Your task to perform on an android device: Add usb-a to usb-b to the cart on newegg Image 0: 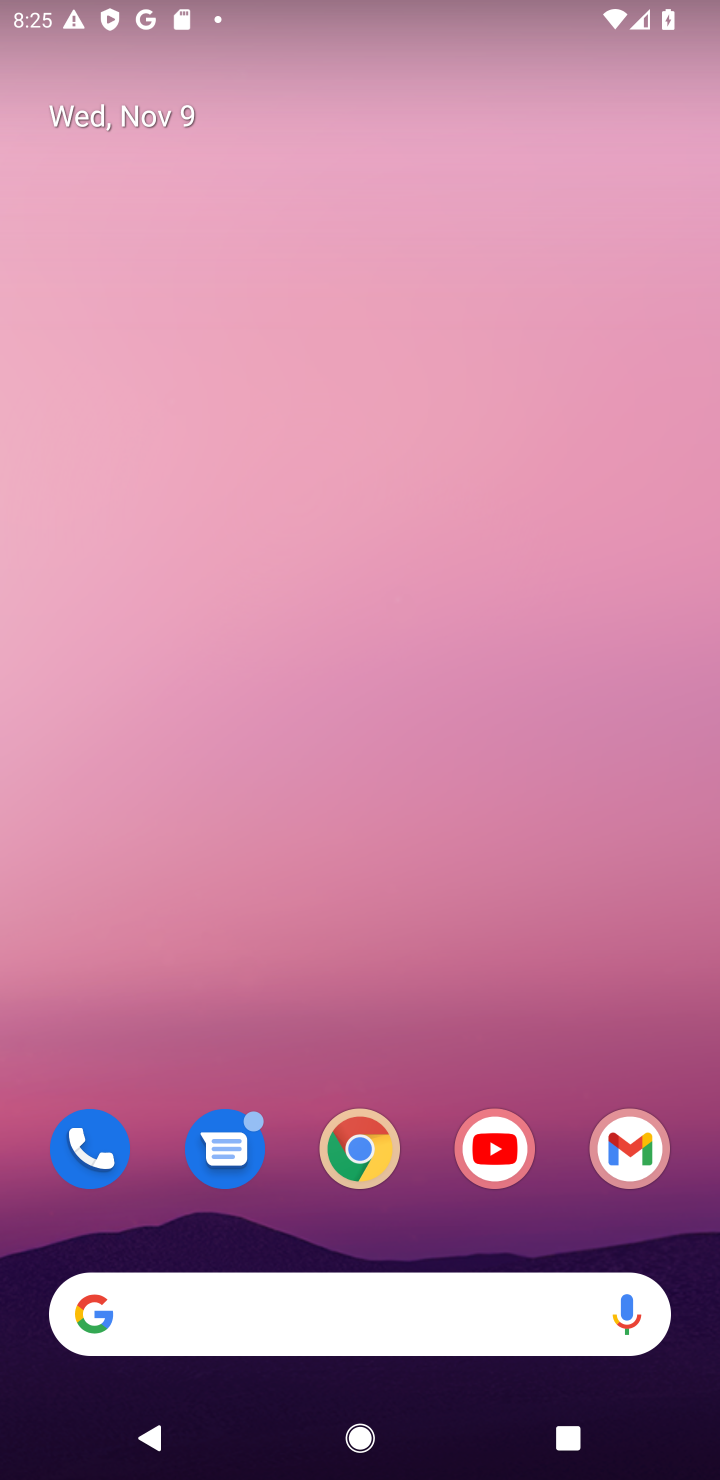
Step 0: drag from (434, 554) to (455, 347)
Your task to perform on an android device: Add usb-a to usb-b to the cart on newegg Image 1: 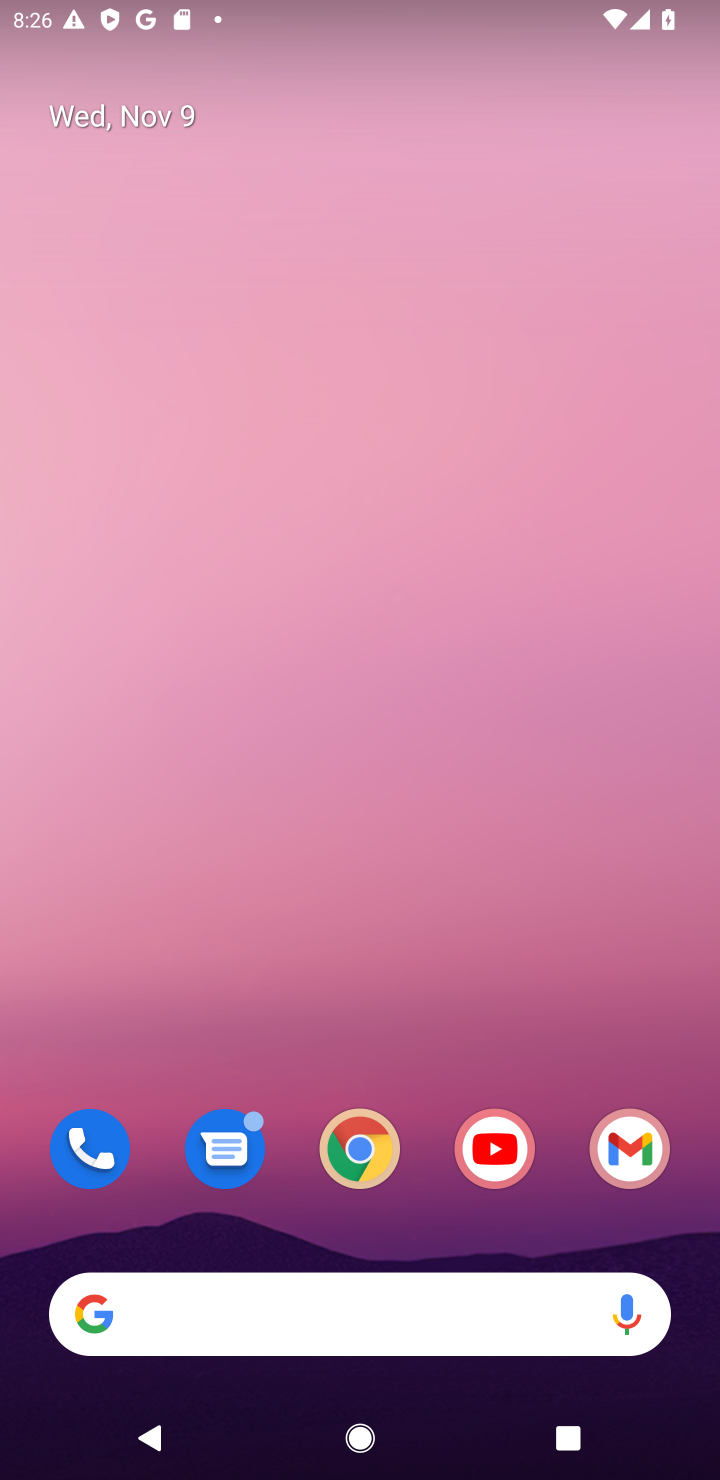
Step 1: drag from (450, 845) to (488, 288)
Your task to perform on an android device: Add usb-a to usb-b to the cart on newegg Image 2: 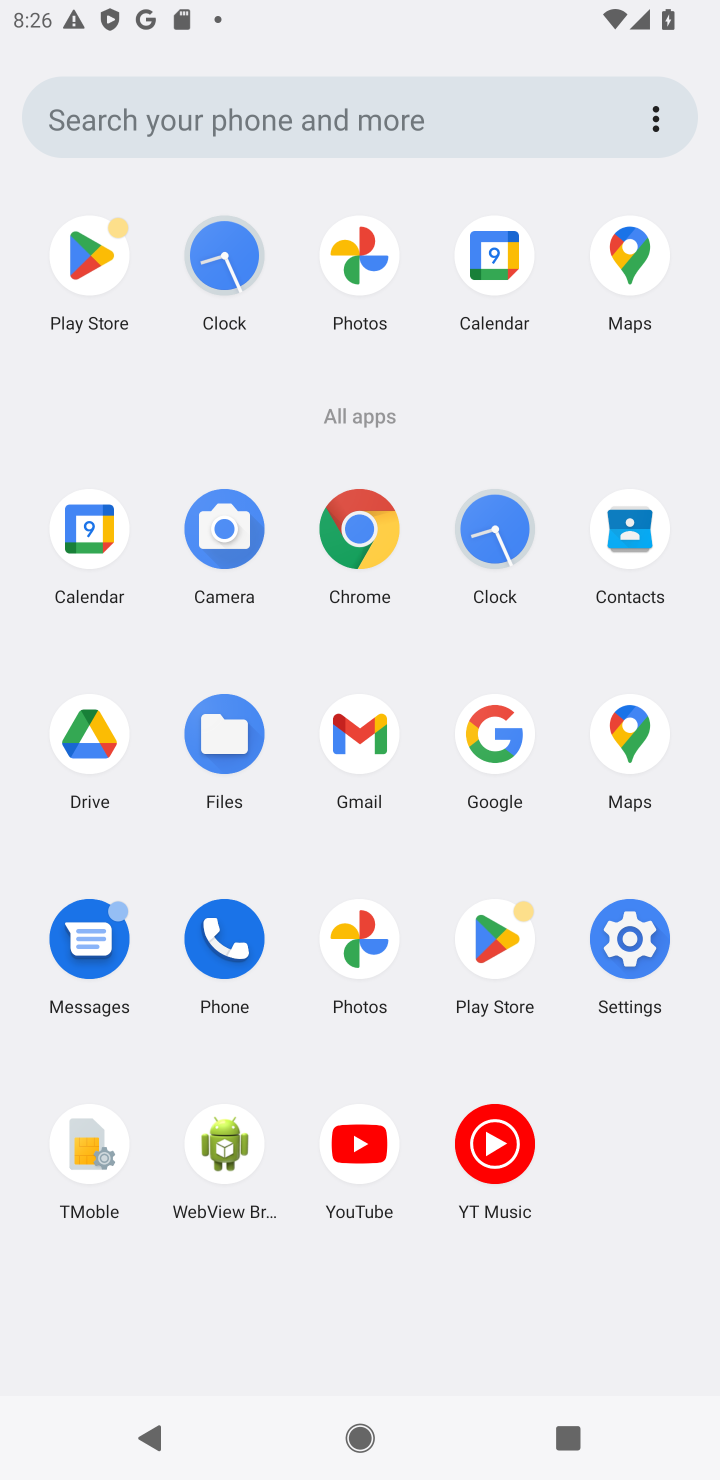
Step 2: click (373, 529)
Your task to perform on an android device: Add usb-a to usb-b to the cart on newegg Image 3: 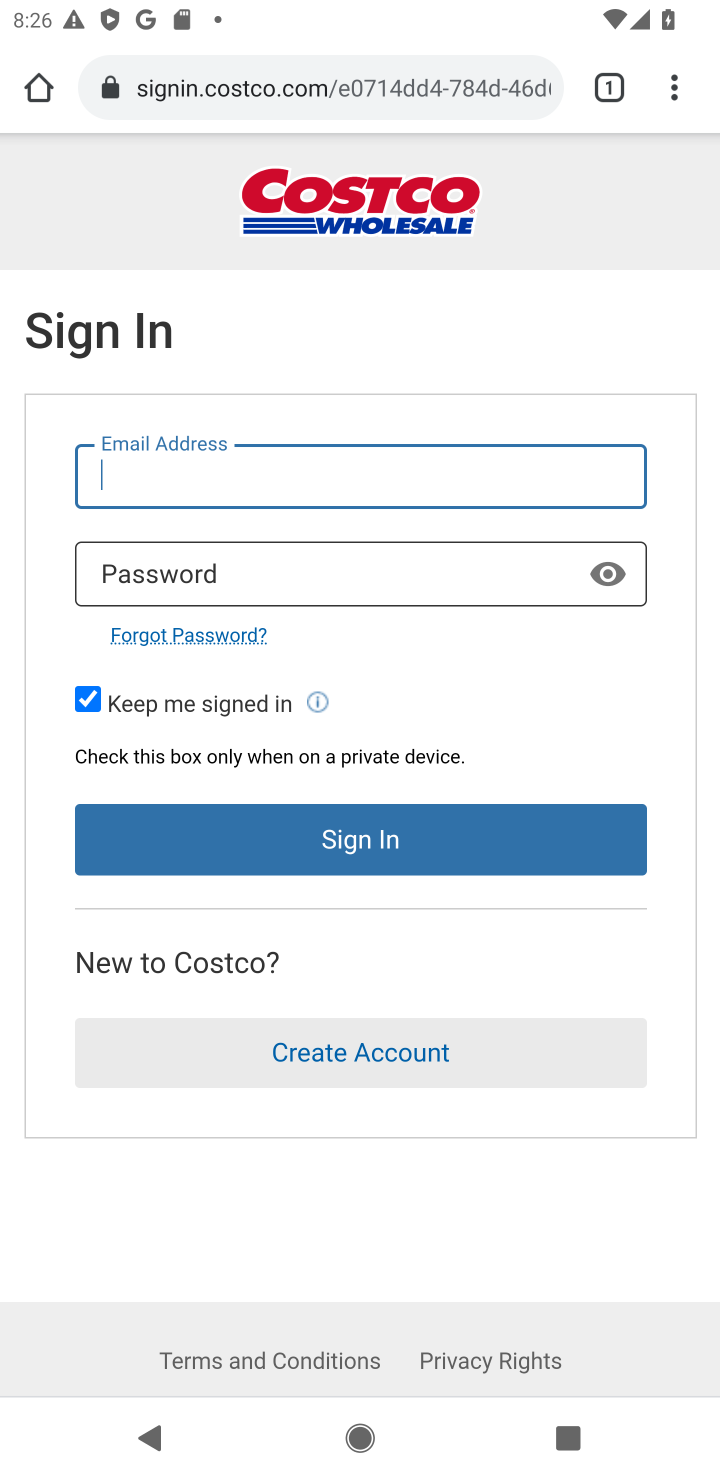
Step 3: click (339, 107)
Your task to perform on an android device: Add usb-a to usb-b to the cart on newegg Image 4: 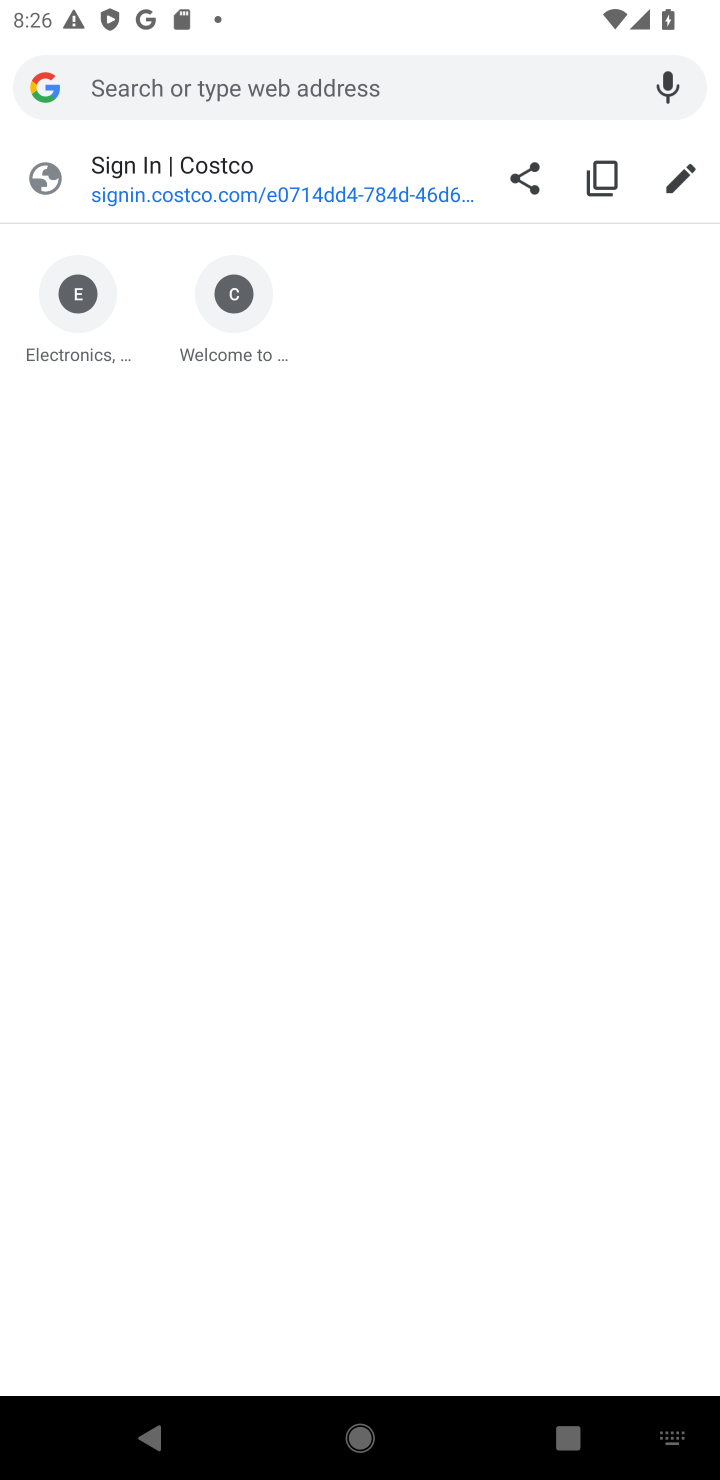
Step 4: type "newegg"
Your task to perform on an android device: Add usb-a to usb-b to the cart on newegg Image 5: 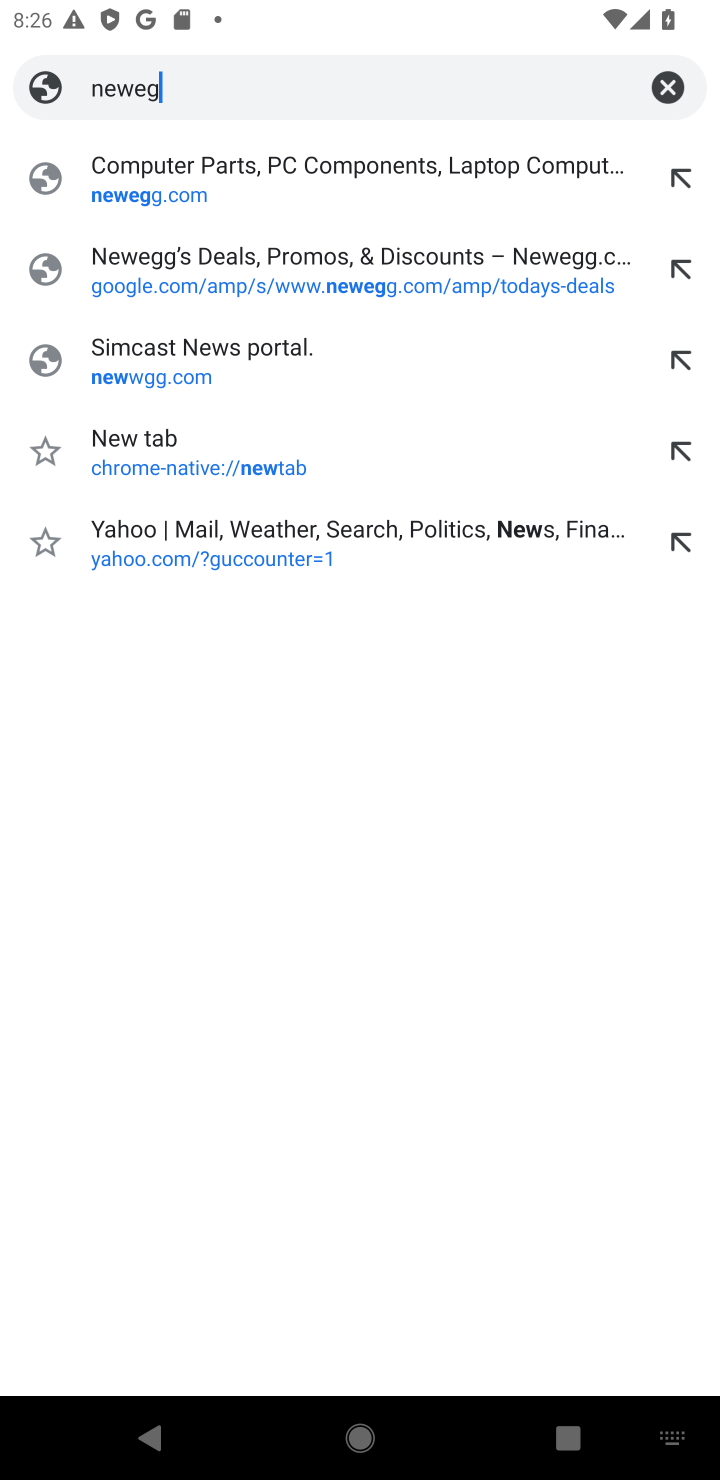
Step 5: press enter
Your task to perform on an android device: Add usb-a to usb-b to the cart on newegg Image 6: 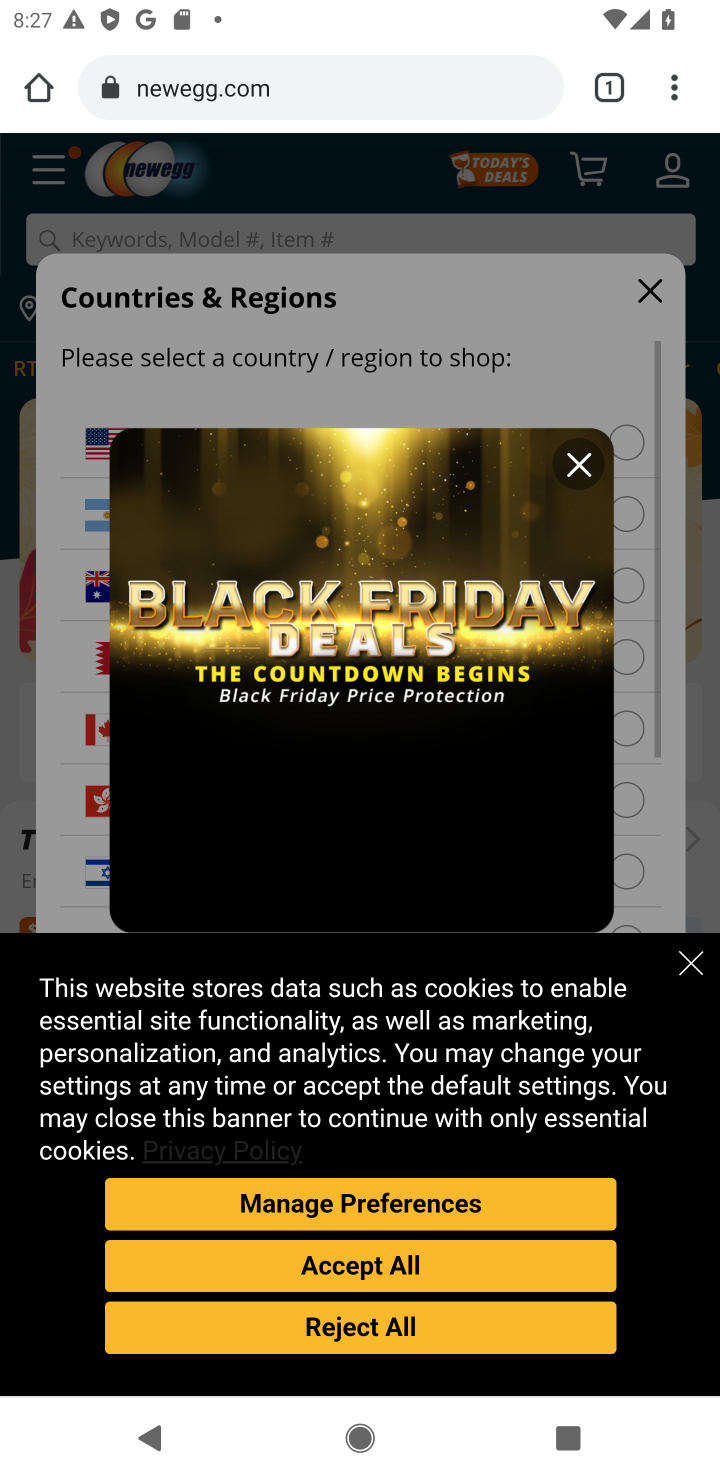
Step 6: click (379, 1256)
Your task to perform on an android device: Add usb-a to usb-b to the cart on newegg Image 7: 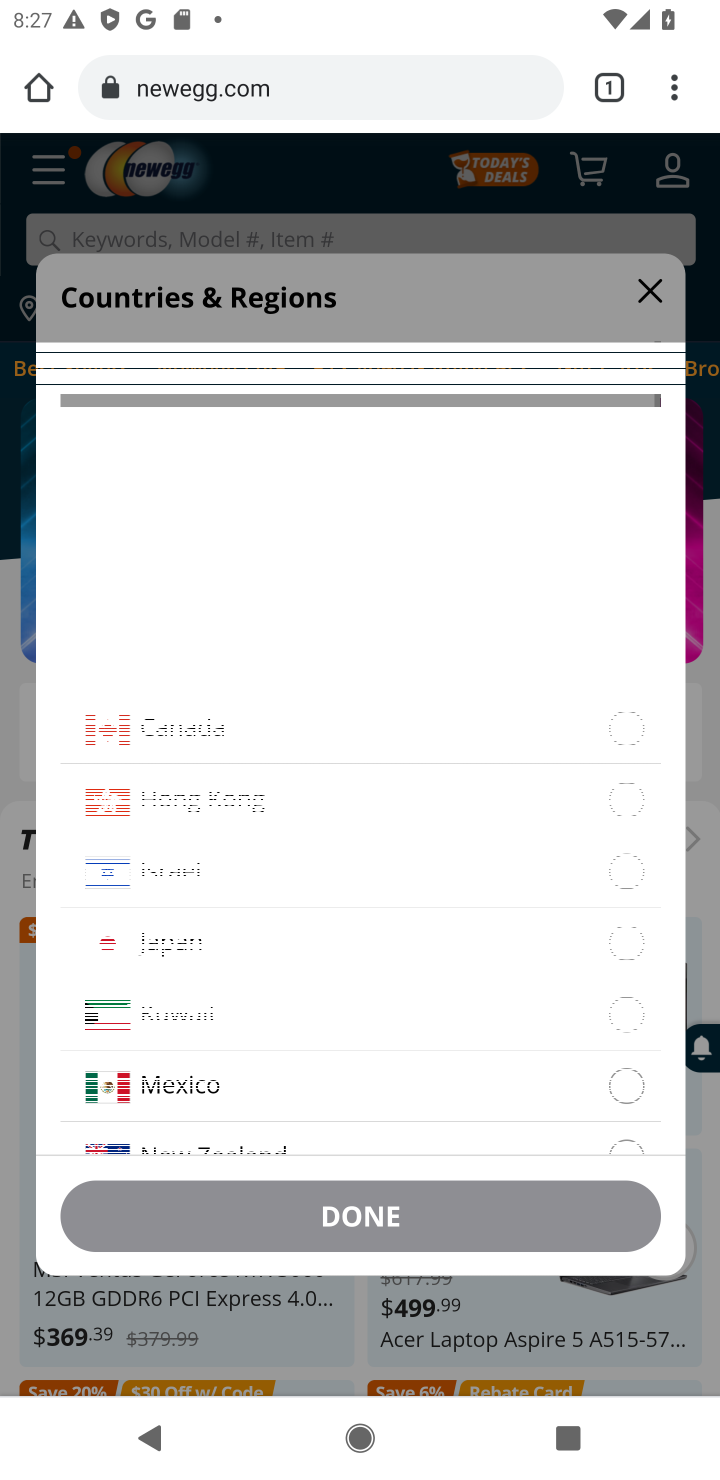
Step 7: click (581, 458)
Your task to perform on an android device: Add usb-a to usb-b to the cart on newegg Image 8: 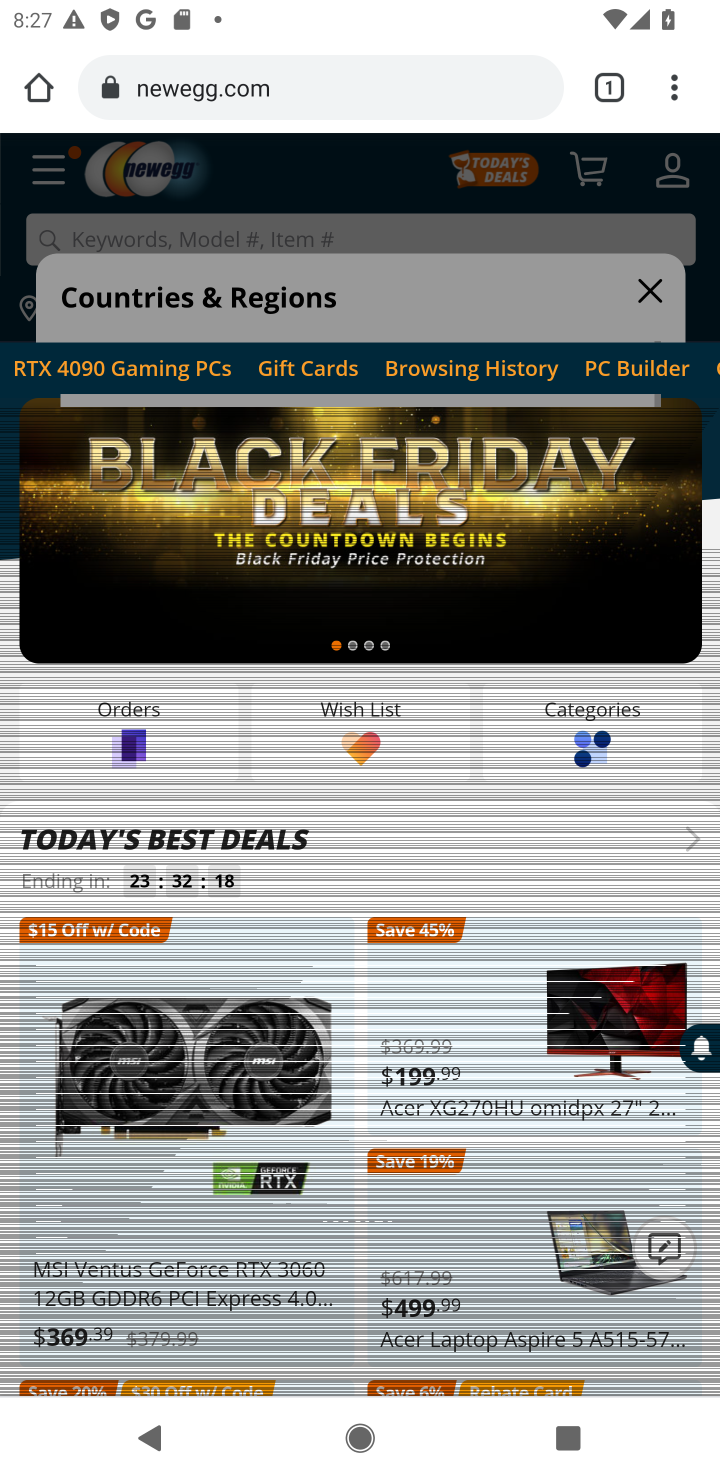
Step 8: click (586, 456)
Your task to perform on an android device: Add usb-a to usb-b to the cart on newegg Image 9: 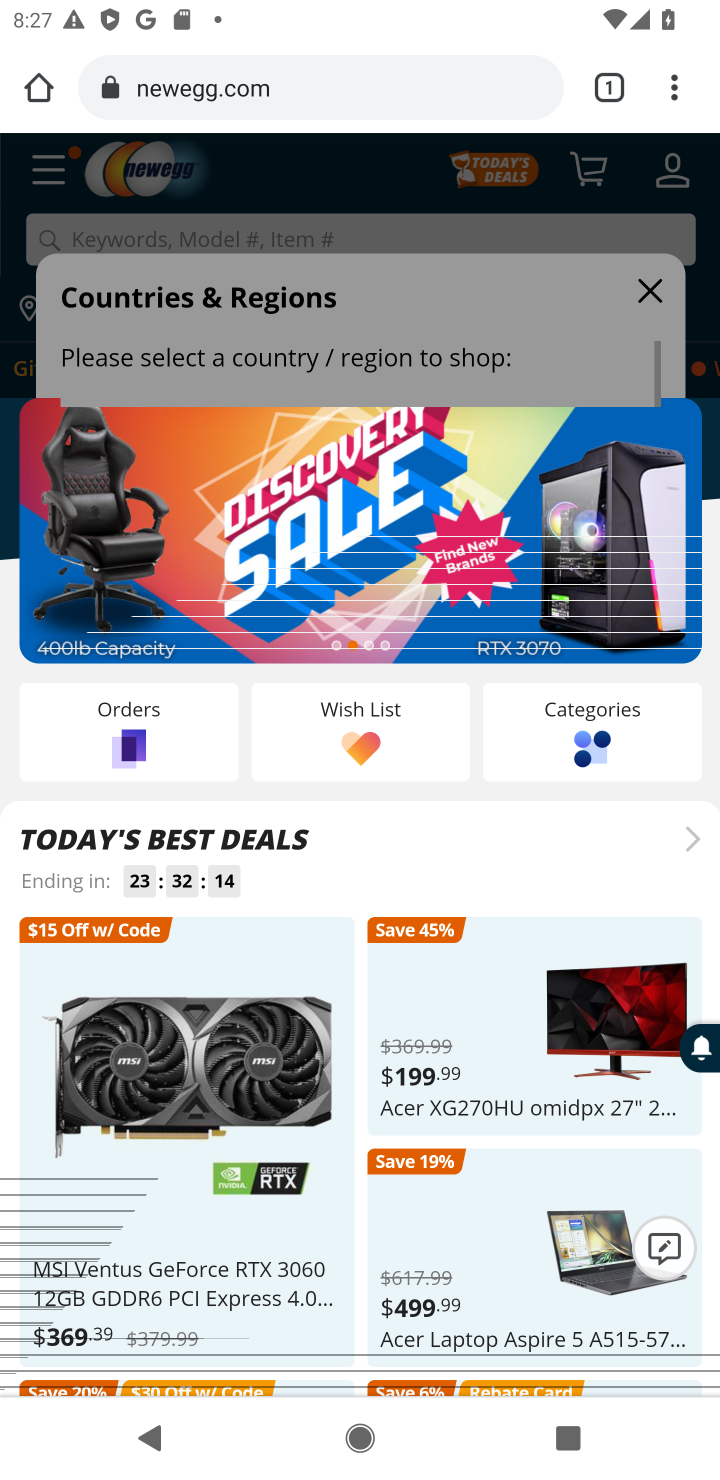
Step 9: click (582, 460)
Your task to perform on an android device: Add usb-a to usb-b to the cart on newegg Image 10: 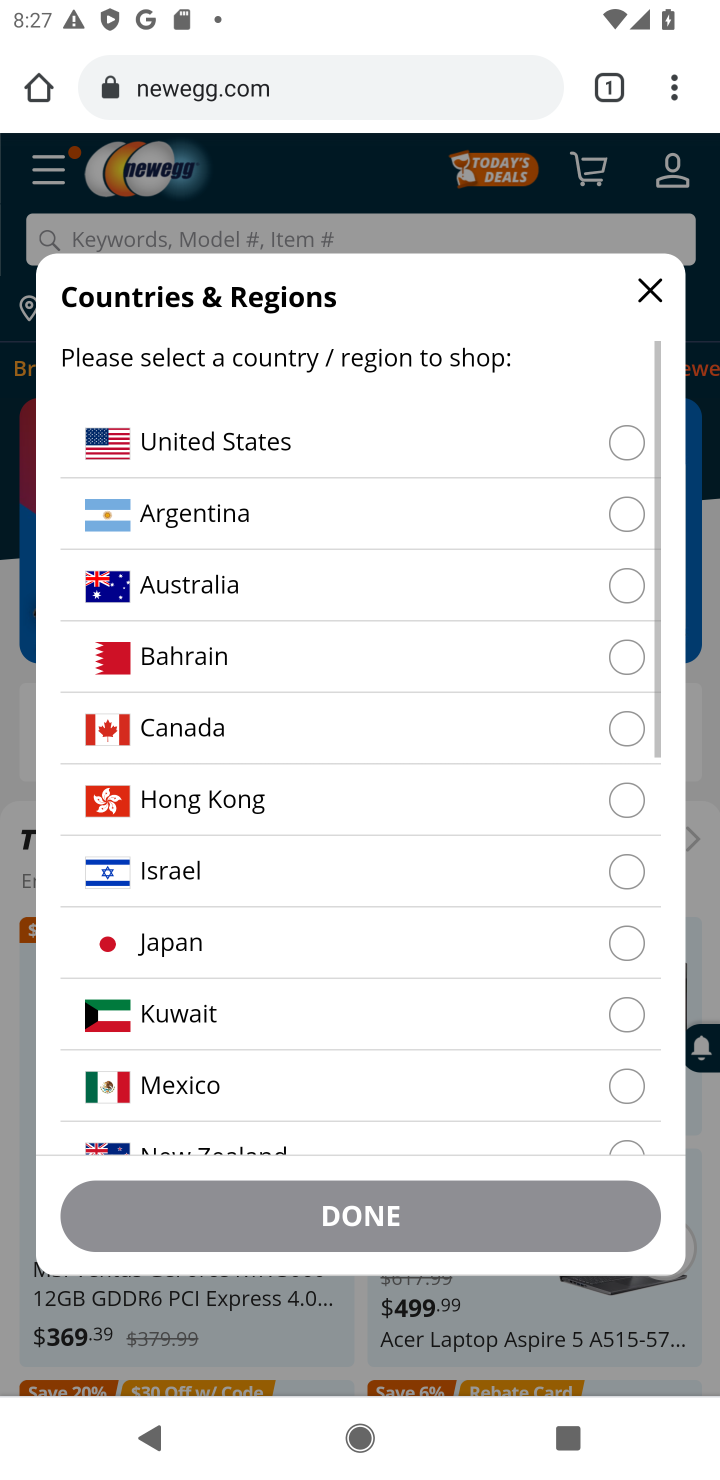
Step 10: click (573, 480)
Your task to perform on an android device: Add usb-a to usb-b to the cart on newegg Image 11: 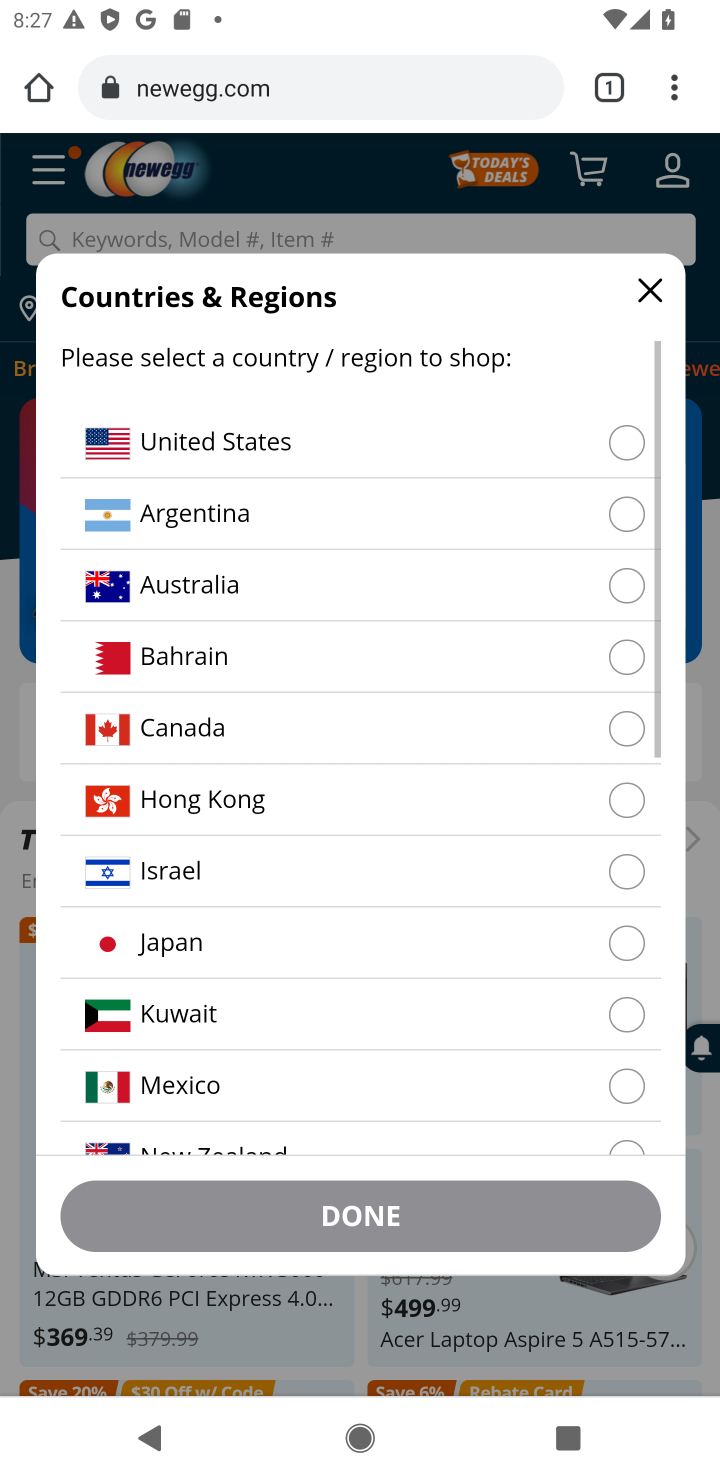
Step 11: click (580, 452)
Your task to perform on an android device: Add usb-a to usb-b to the cart on newegg Image 12: 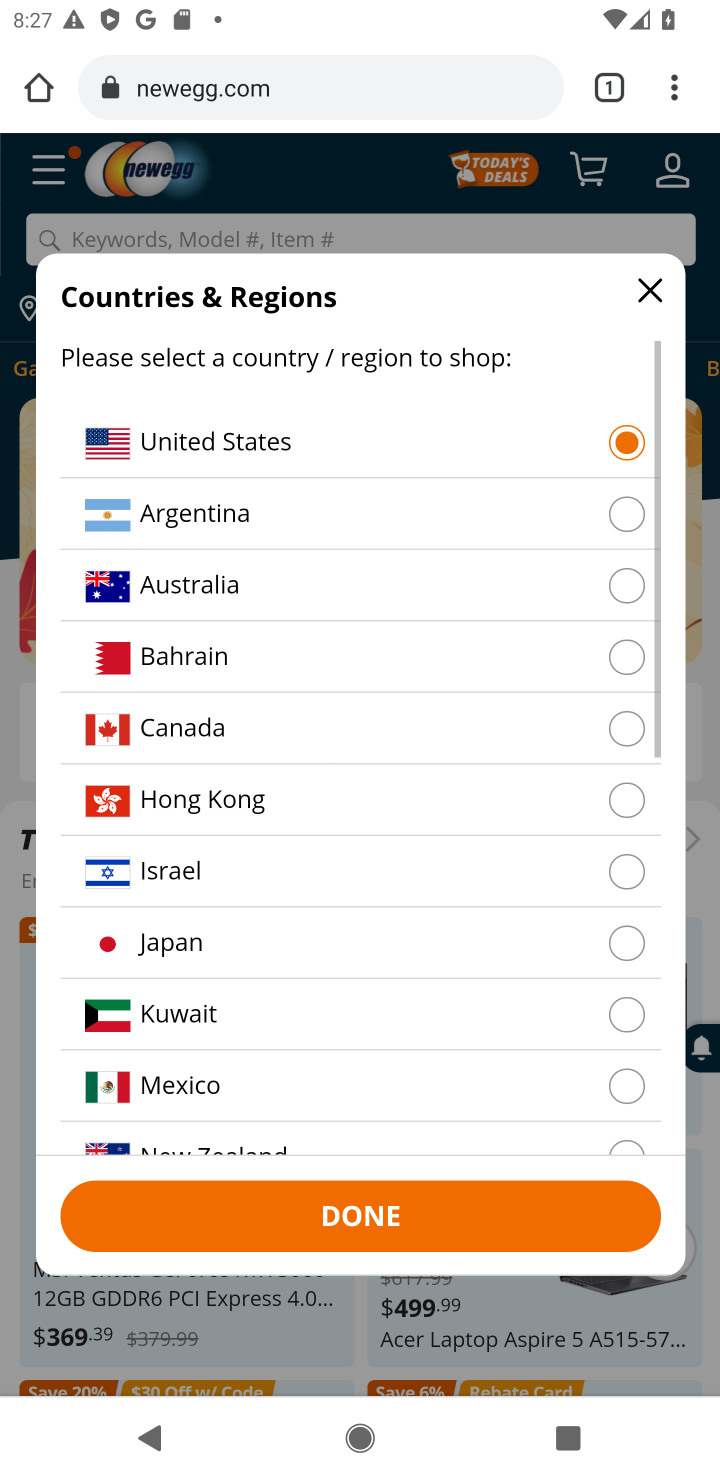
Step 12: click (350, 1208)
Your task to perform on an android device: Add usb-a to usb-b to the cart on newegg Image 13: 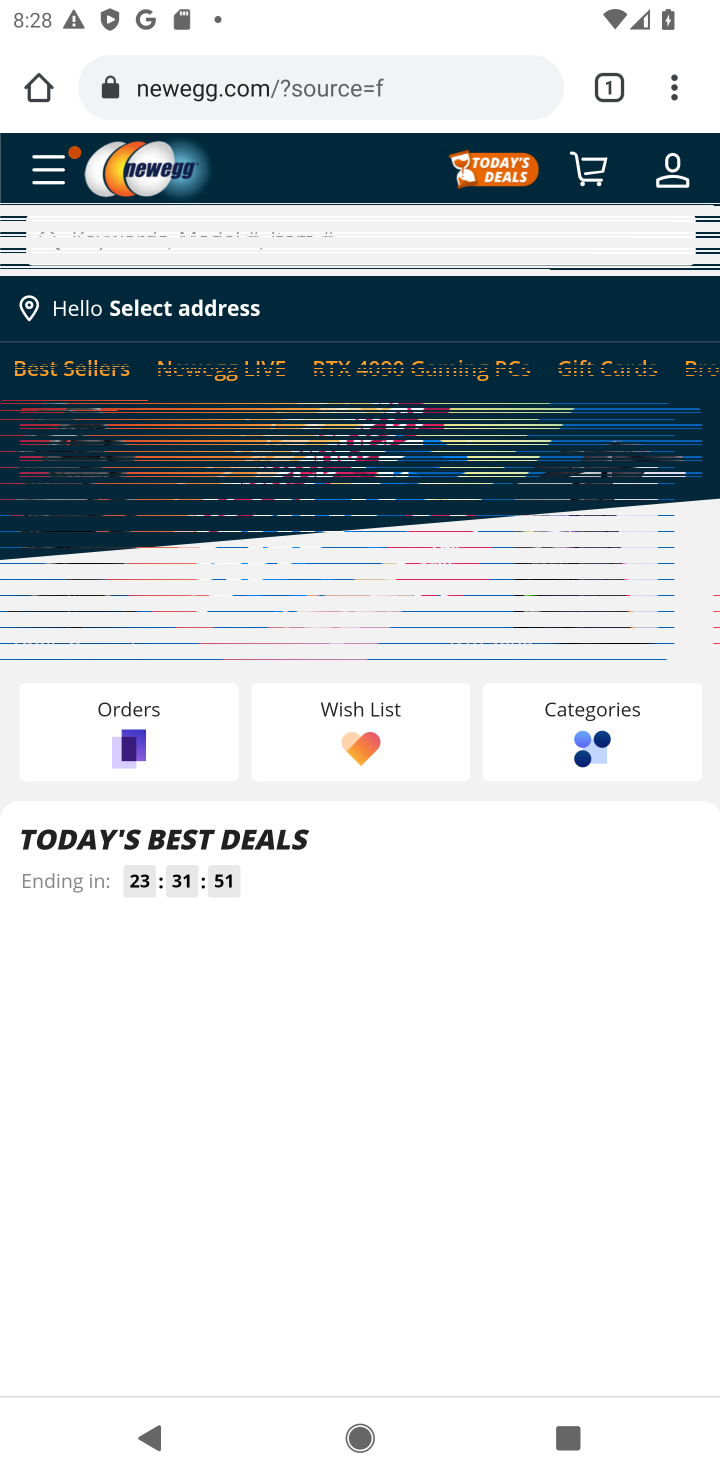
Step 13: click (96, 233)
Your task to perform on an android device: Add usb-a to usb-b to the cart on newegg Image 14: 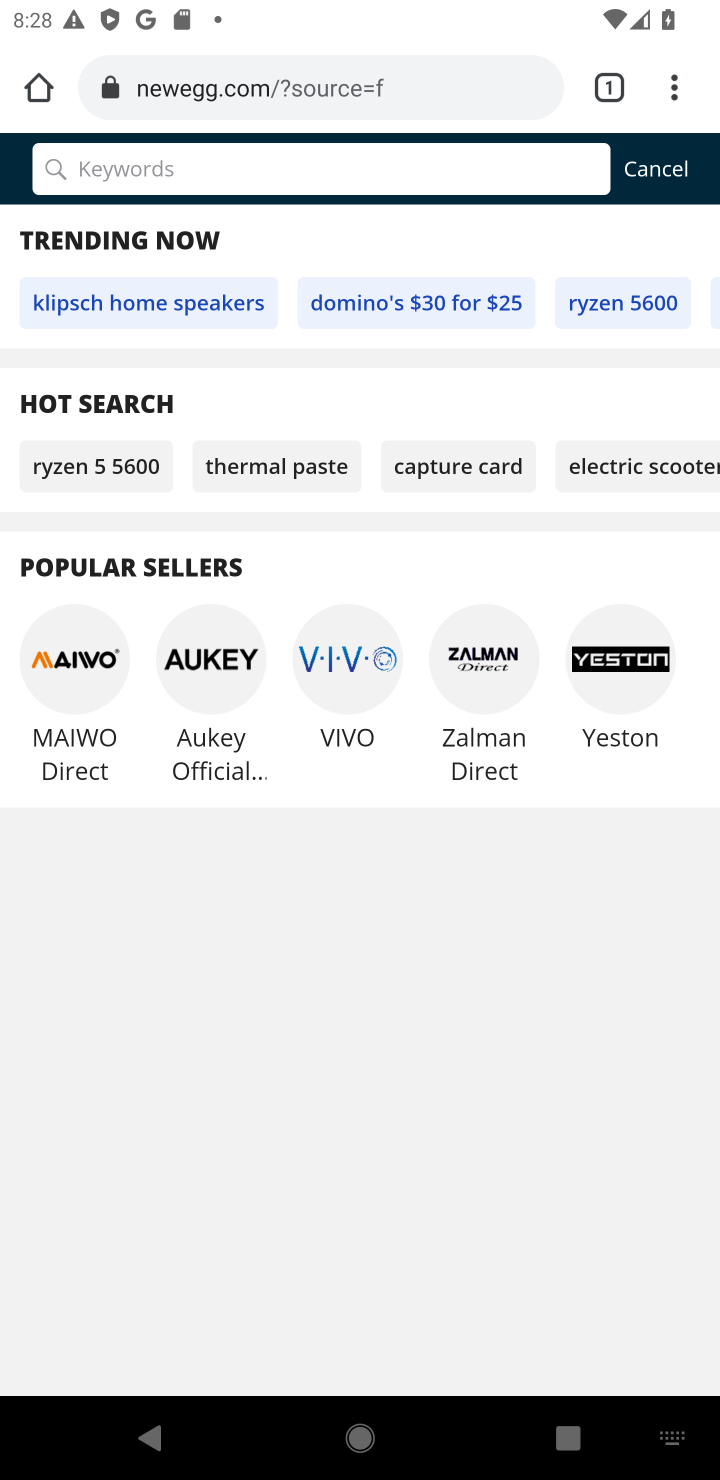
Step 14: click (504, 1015)
Your task to perform on an android device: Add usb-a to usb-b to the cart on newegg Image 15: 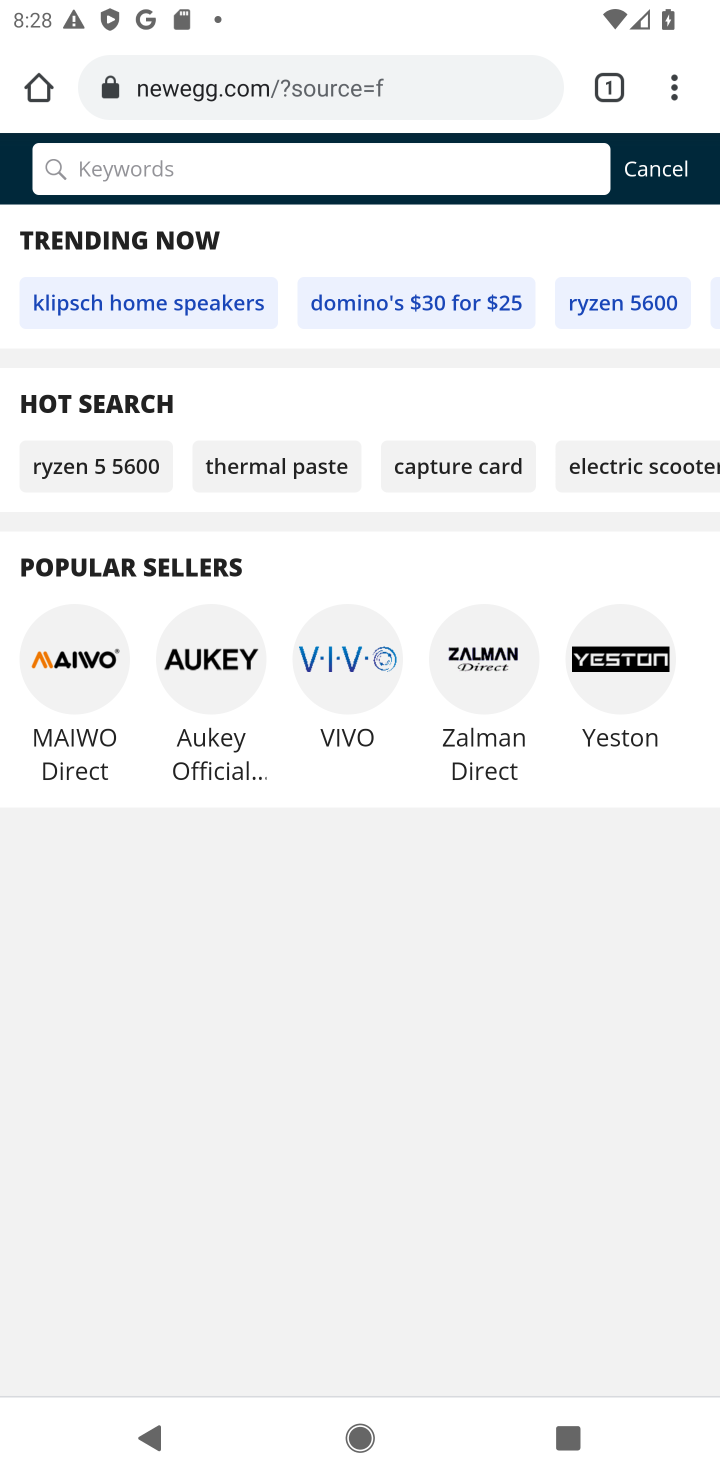
Step 15: click (287, 175)
Your task to perform on an android device: Add usb-a to usb-b to the cart on newegg Image 16: 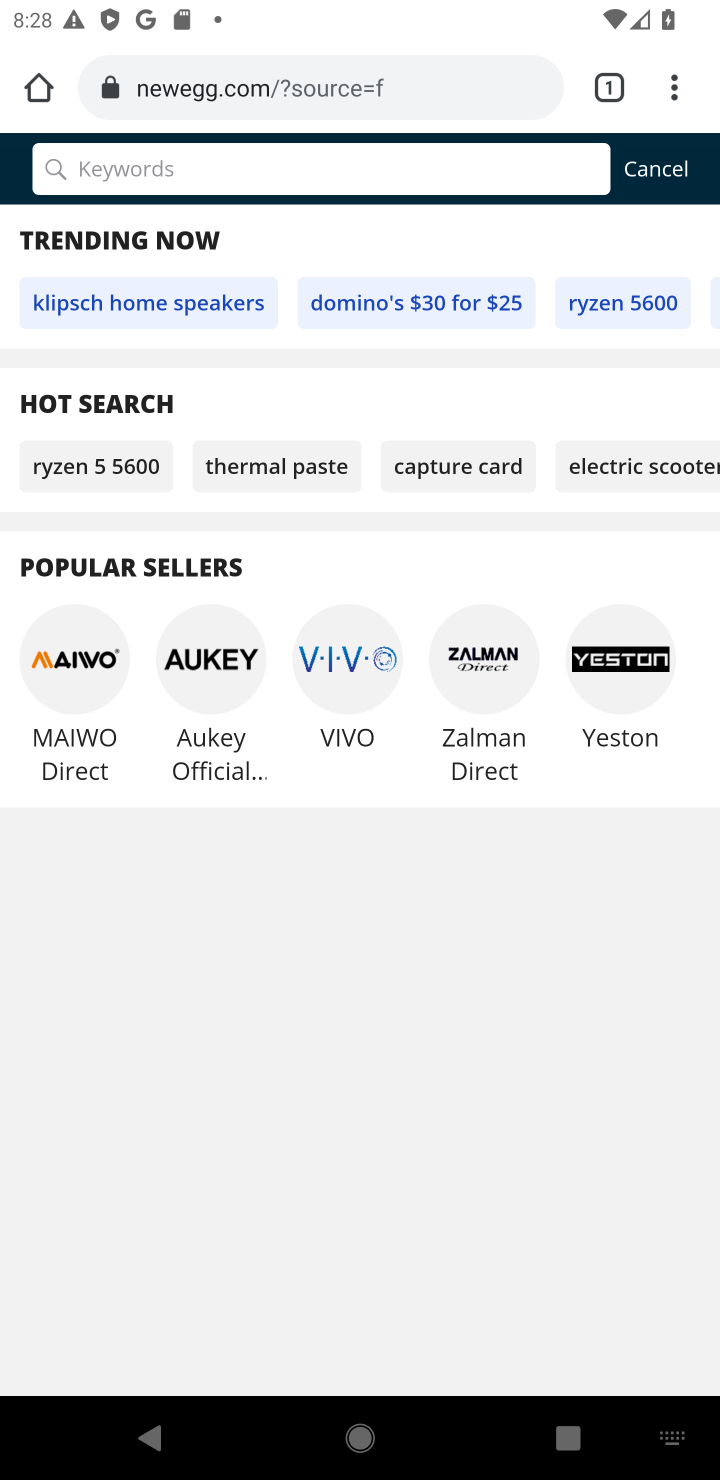
Step 16: type "usb-a to usb-b "
Your task to perform on an android device: Add usb-a to usb-b to the cart on newegg Image 17: 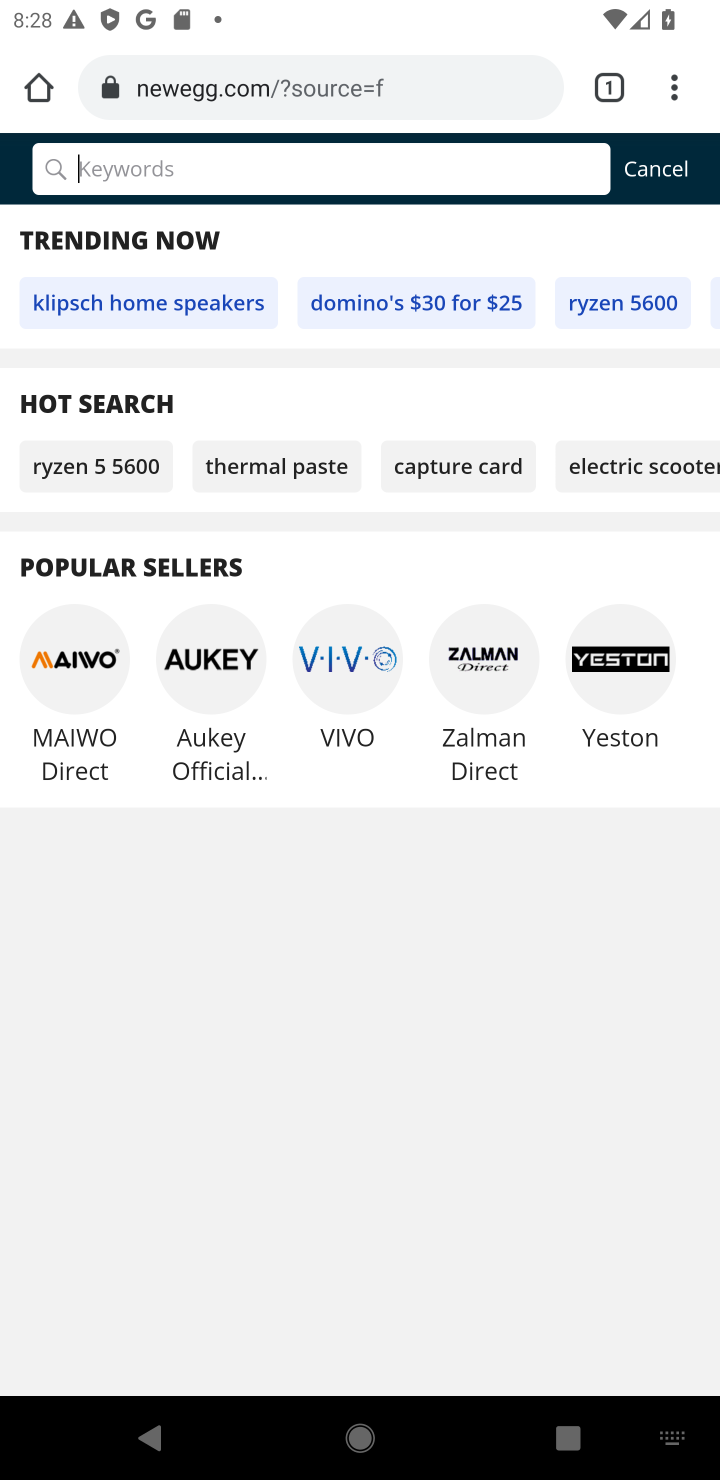
Step 17: press enter
Your task to perform on an android device: Add usb-a to usb-b to the cart on newegg Image 18: 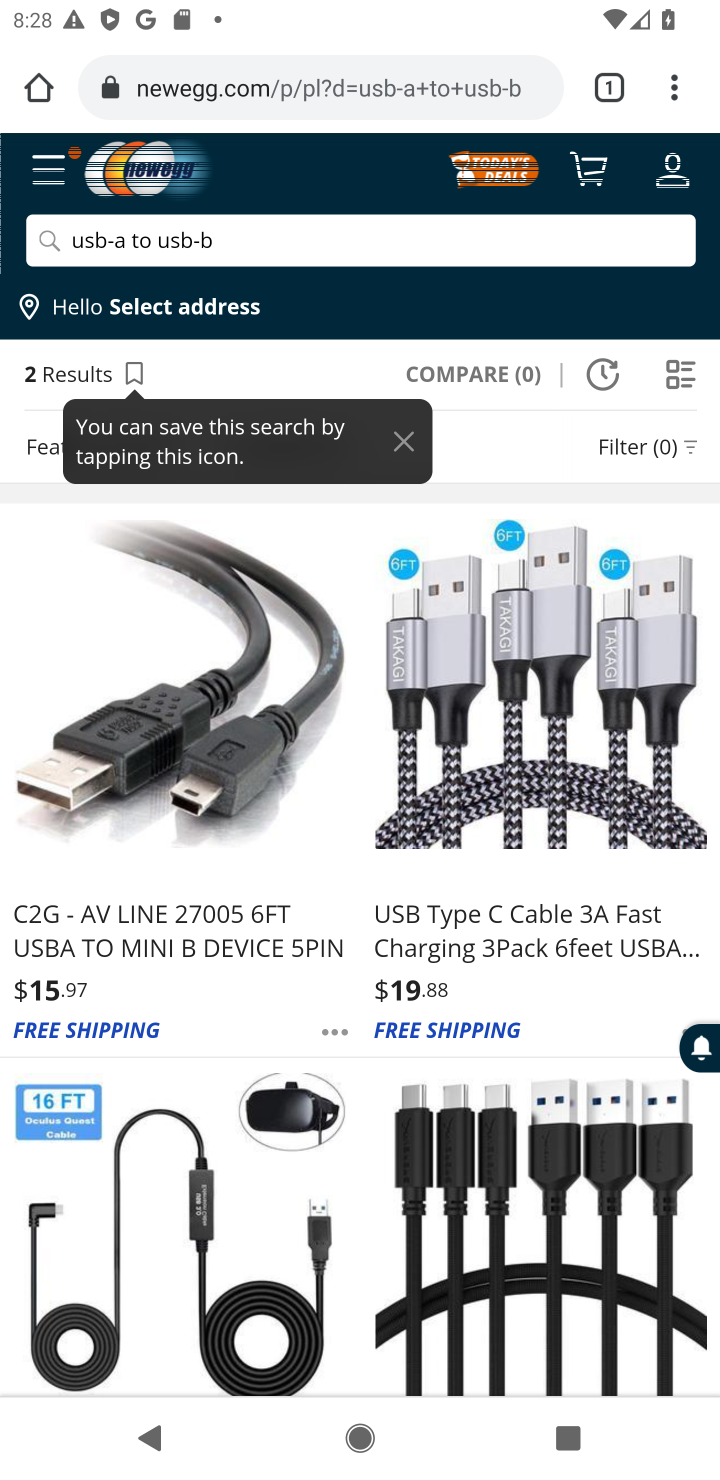
Step 18: click (162, 731)
Your task to perform on an android device: Add usb-a to usb-b to the cart on newegg Image 19: 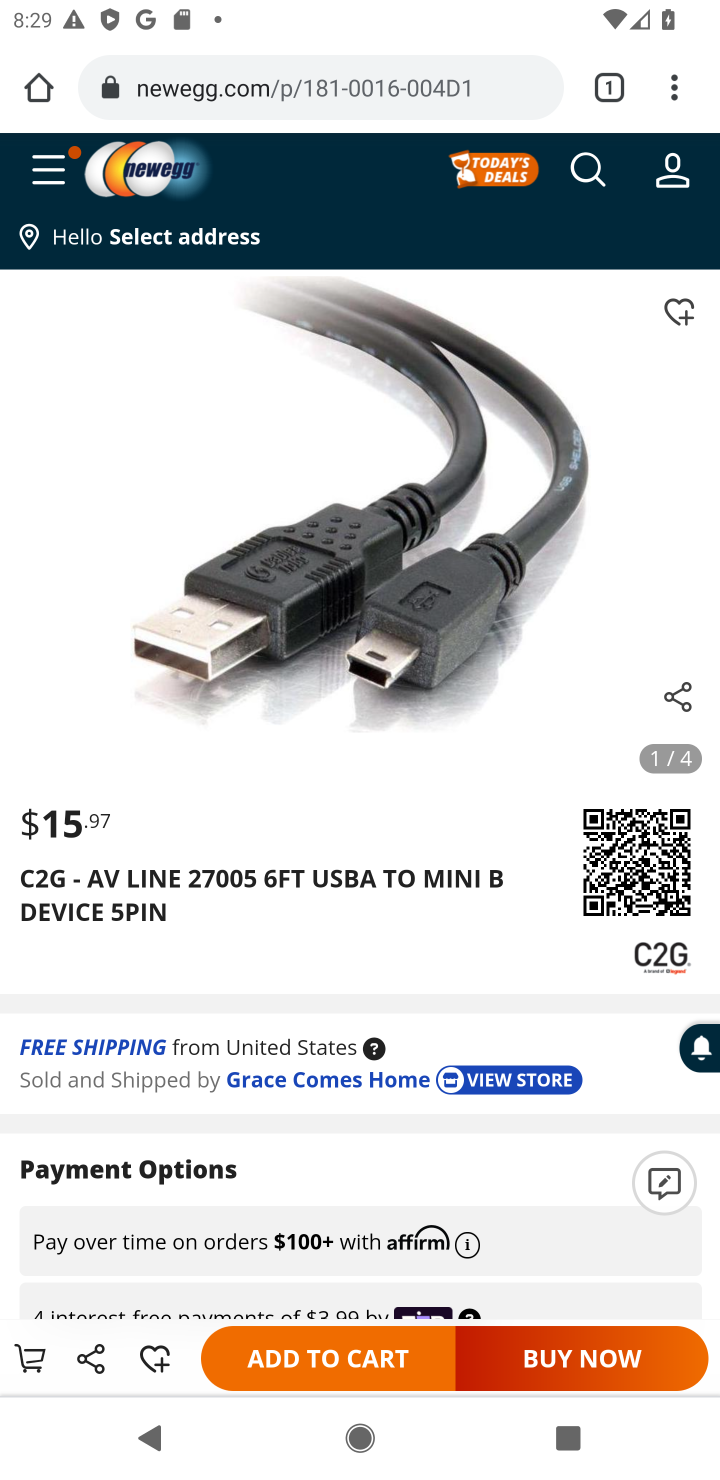
Step 19: click (325, 1344)
Your task to perform on an android device: Add usb-a to usb-b to the cart on newegg Image 20: 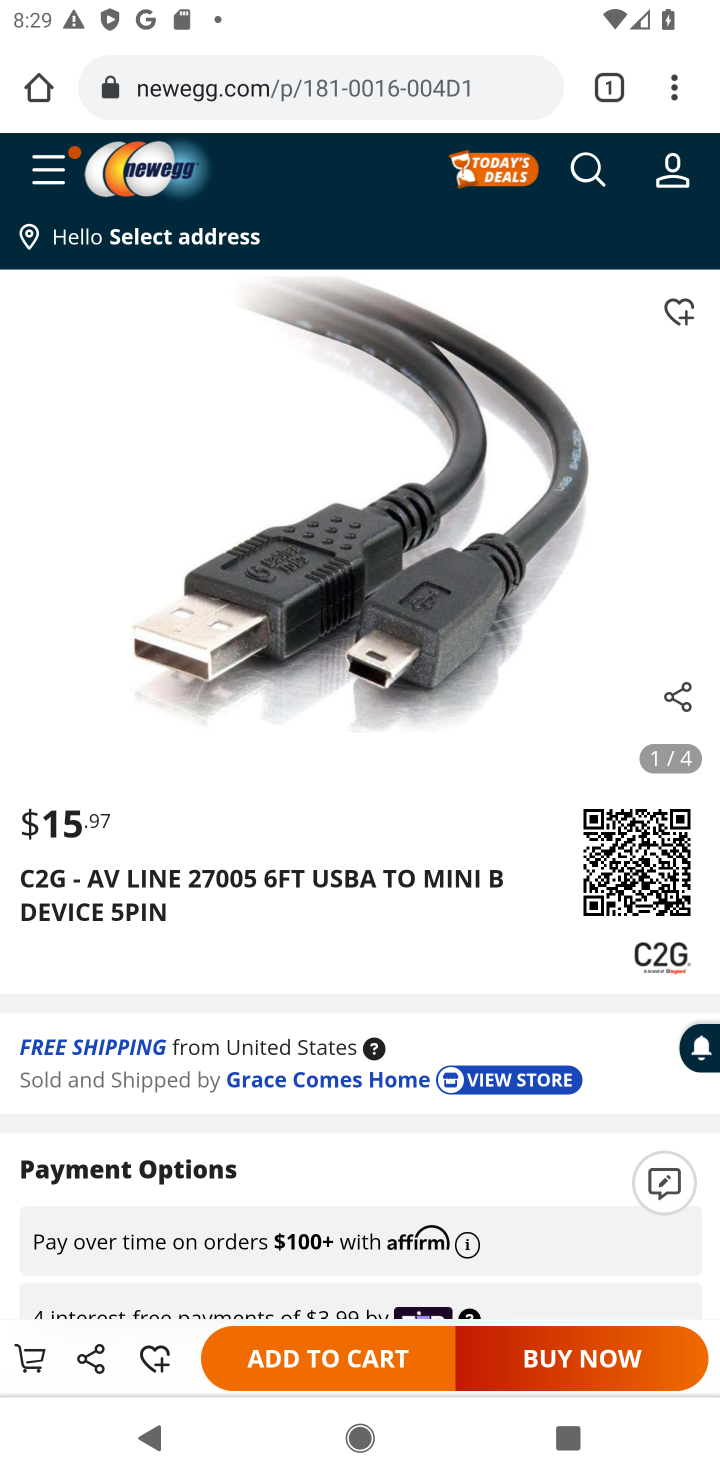
Step 20: click (351, 1350)
Your task to perform on an android device: Add usb-a to usb-b to the cart on newegg Image 21: 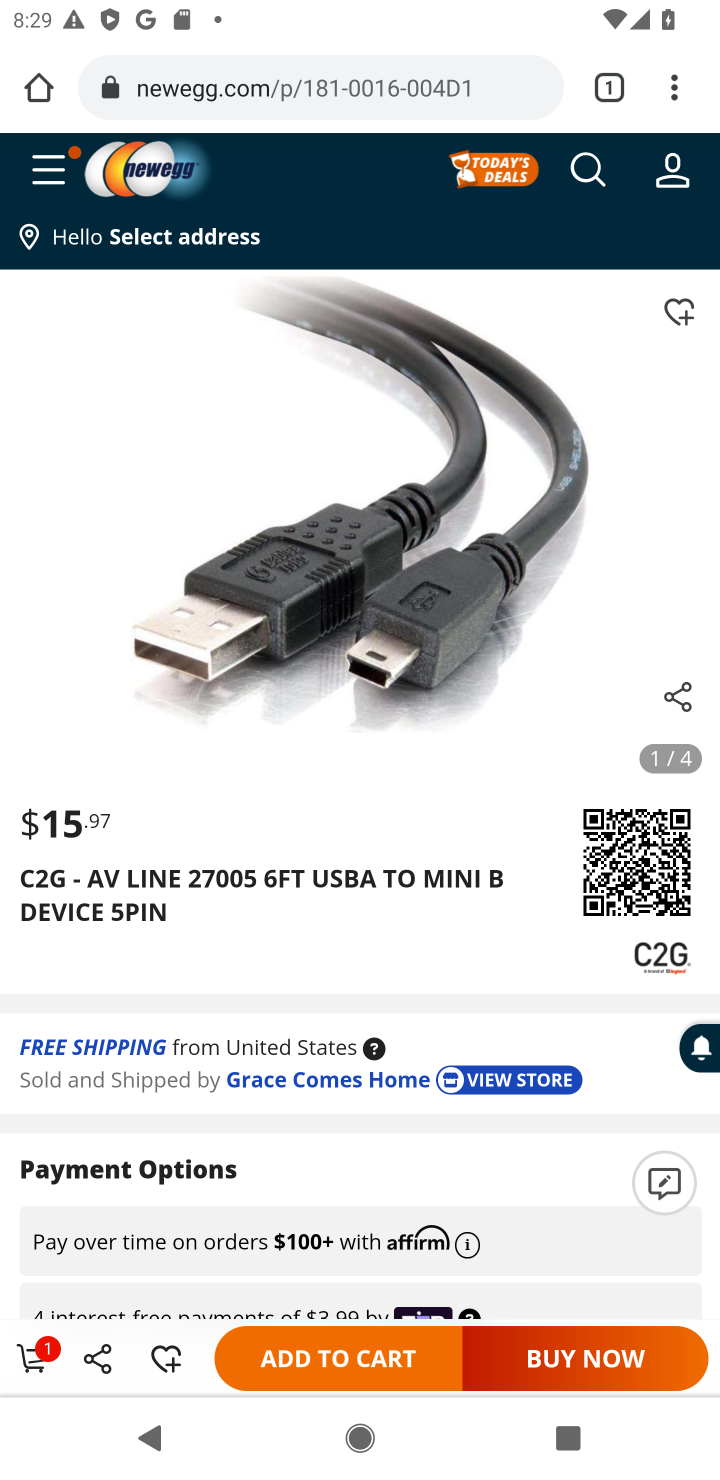
Step 21: click (351, 1354)
Your task to perform on an android device: Add usb-a to usb-b to the cart on newegg Image 22: 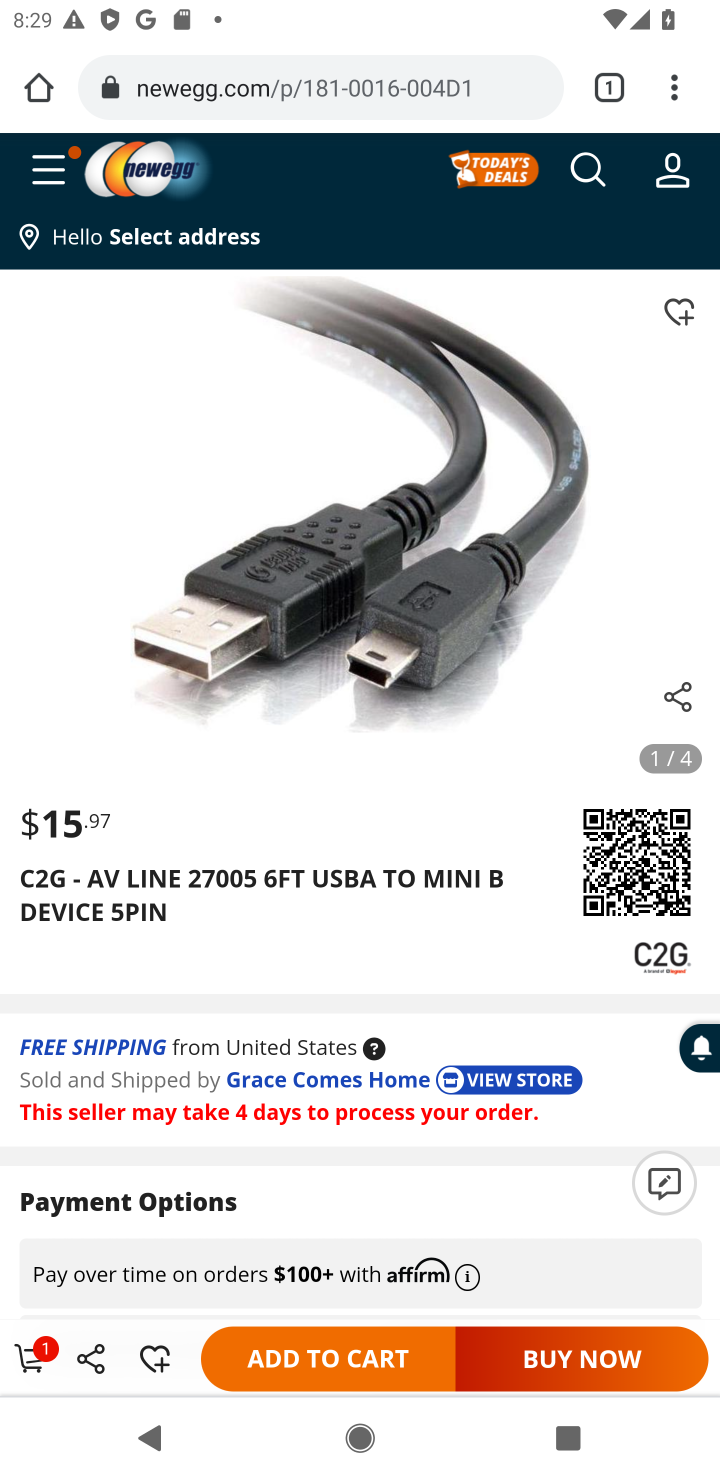
Step 22: task complete